Your task to perform on an android device: Go to settings Image 0: 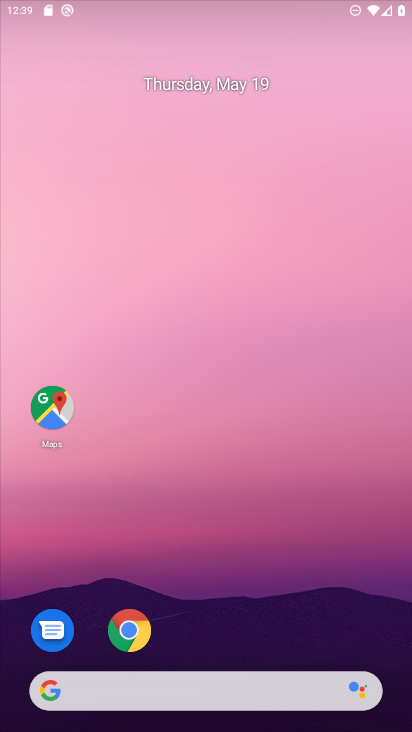
Step 0: drag from (180, 646) to (276, 109)
Your task to perform on an android device: Go to settings Image 1: 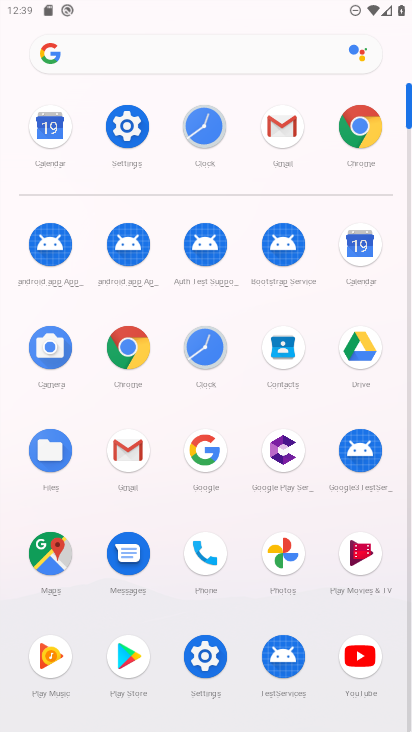
Step 1: click (198, 660)
Your task to perform on an android device: Go to settings Image 2: 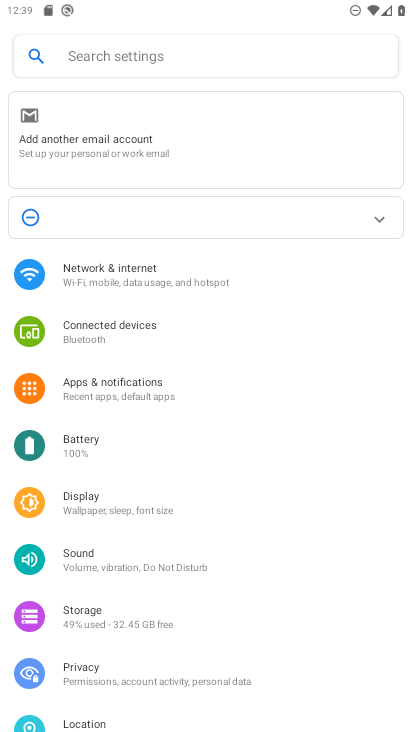
Step 2: task complete